Your task to perform on an android device: Open the Play Movies app and select the watchlist tab. Image 0: 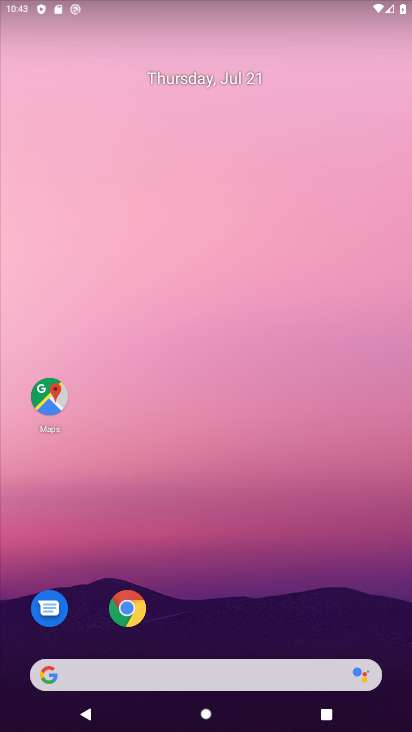
Step 0: drag from (286, 573) to (317, 57)
Your task to perform on an android device: Open the Play Movies app and select the watchlist tab. Image 1: 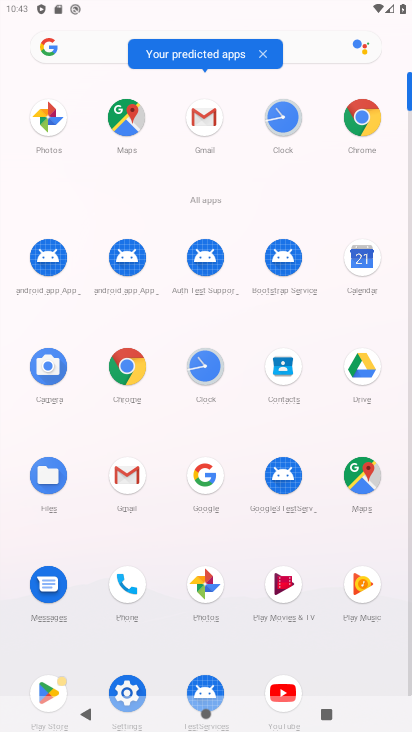
Step 1: click (276, 590)
Your task to perform on an android device: Open the Play Movies app and select the watchlist tab. Image 2: 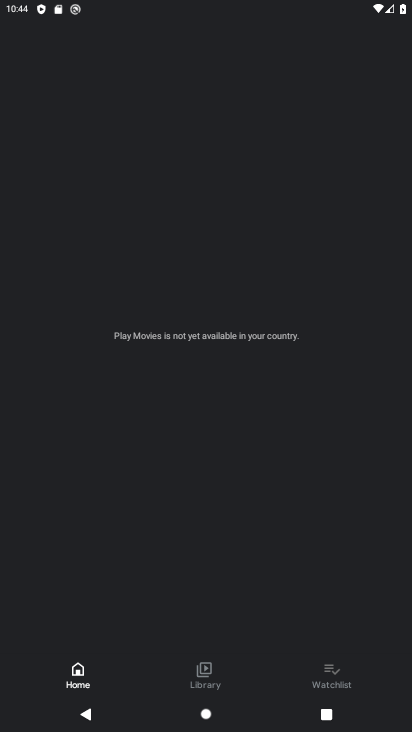
Step 2: click (313, 679)
Your task to perform on an android device: Open the Play Movies app and select the watchlist tab. Image 3: 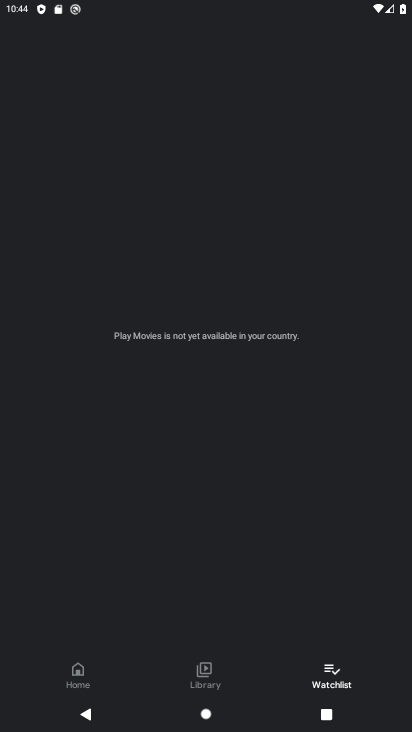
Step 3: task complete